Your task to perform on an android device: turn on sleep mode Image 0: 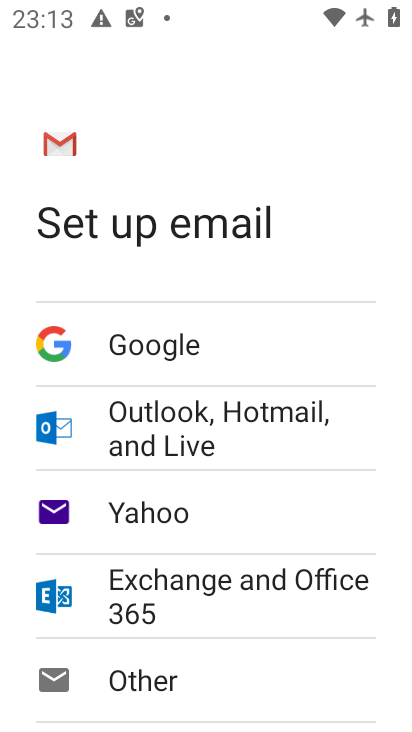
Step 0: drag from (362, 595) to (363, 331)
Your task to perform on an android device: turn on sleep mode Image 1: 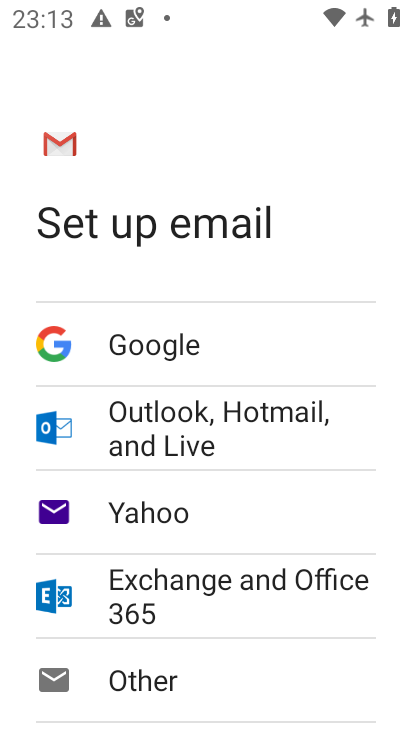
Step 1: press home button
Your task to perform on an android device: turn on sleep mode Image 2: 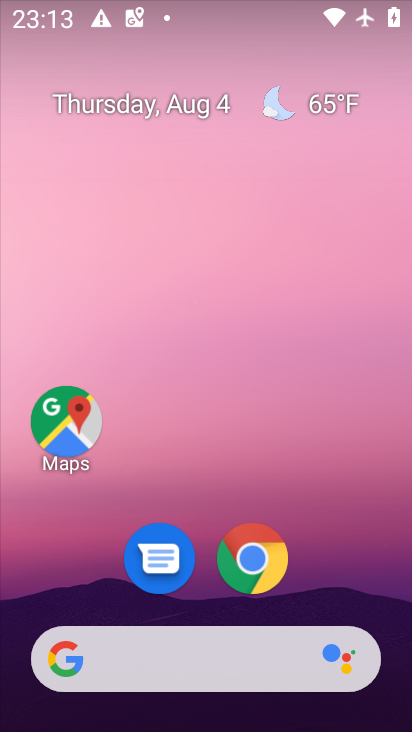
Step 2: drag from (376, 571) to (286, 74)
Your task to perform on an android device: turn on sleep mode Image 3: 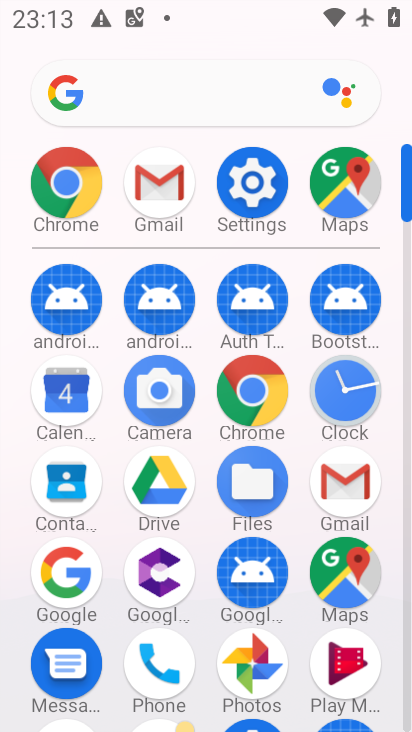
Step 3: click (256, 163)
Your task to perform on an android device: turn on sleep mode Image 4: 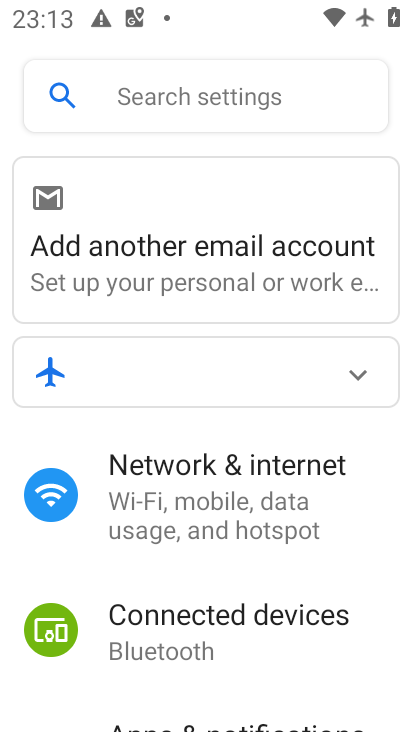
Step 4: drag from (310, 581) to (280, 80)
Your task to perform on an android device: turn on sleep mode Image 5: 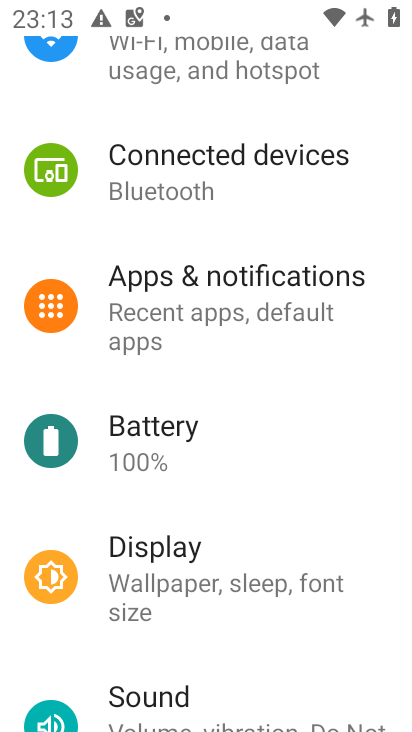
Step 5: click (182, 592)
Your task to perform on an android device: turn on sleep mode Image 6: 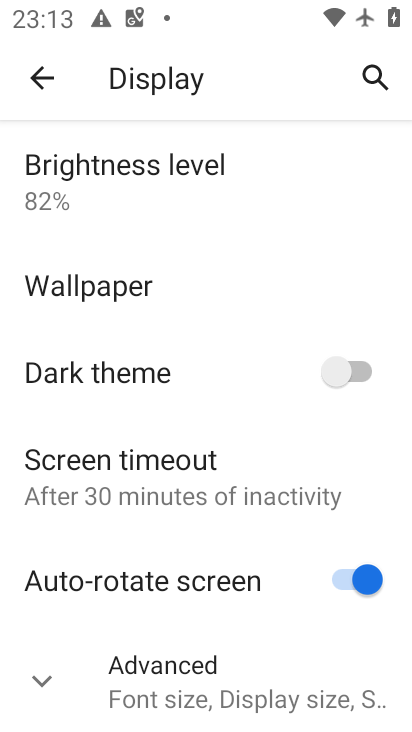
Step 6: click (236, 477)
Your task to perform on an android device: turn on sleep mode Image 7: 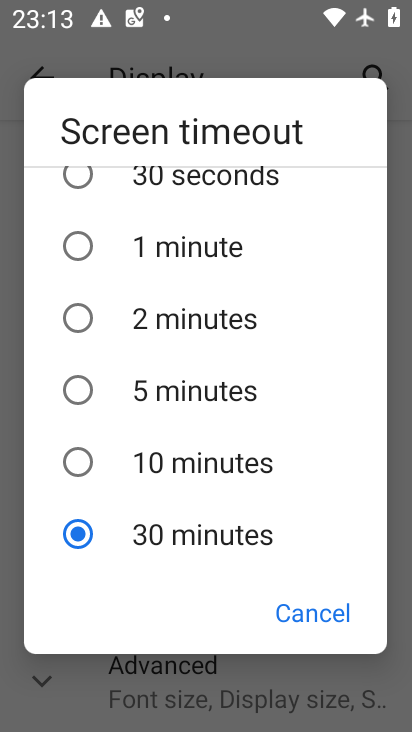
Step 7: task complete